Your task to perform on an android device: Open calendar and show me the fourth week of next month Image 0: 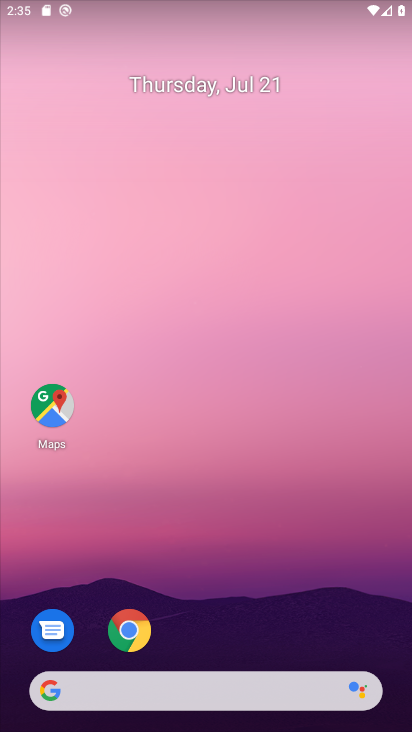
Step 0: drag from (218, 600) to (242, 105)
Your task to perform on an android device: Open calendar and show me the fourth week of next month Image 1: 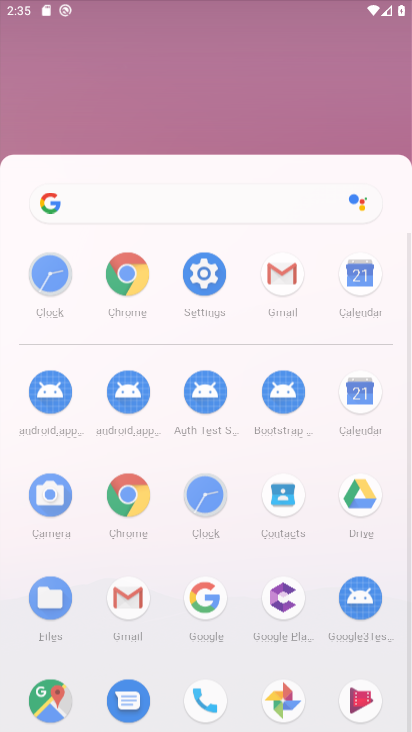
Step 1: drag from (173, 534) to (118, 33)
Your task to perform on an android device: Open calendar and show me the fourth week of next month Image 2: 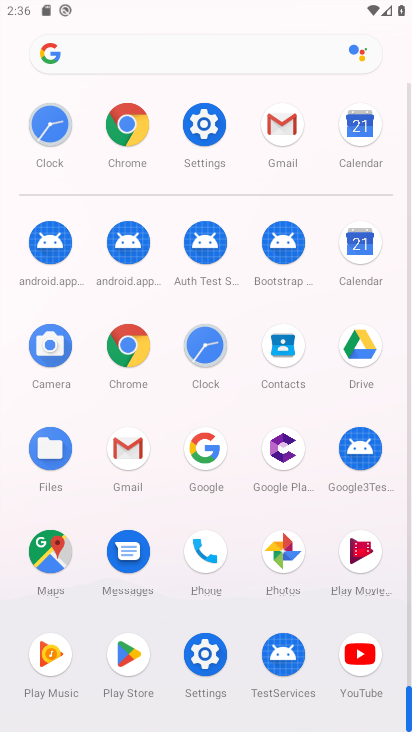
Step 2: click (368, 249)
Your task to perform on an android device: Open calendar and show me the fourth week of next month Image 3: 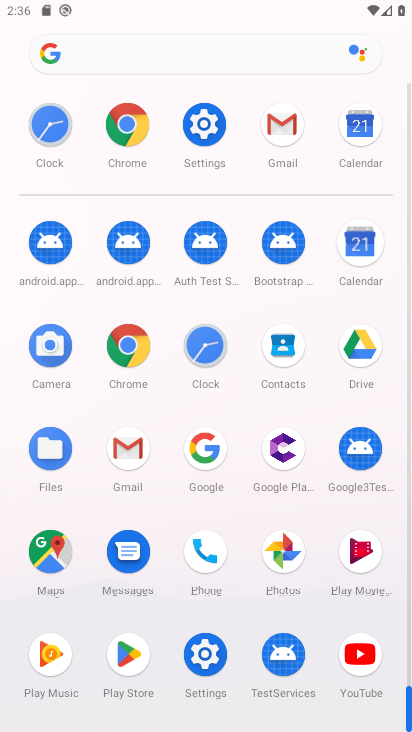
Step 3: click (368, 249)
Your task to perform on an android device: Open calendar and show me the fourth week of next month Image 4: 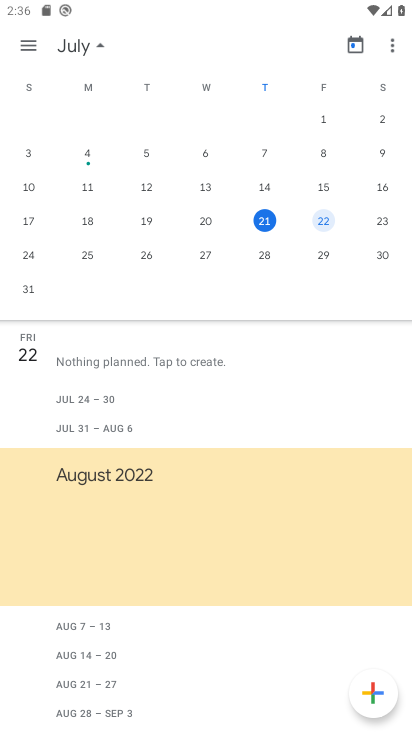
Step 4: drag from (365, 187) to (51, 288)
Your task to perform on an android device: Open calendar and show me the fourth week of next month Image 5: 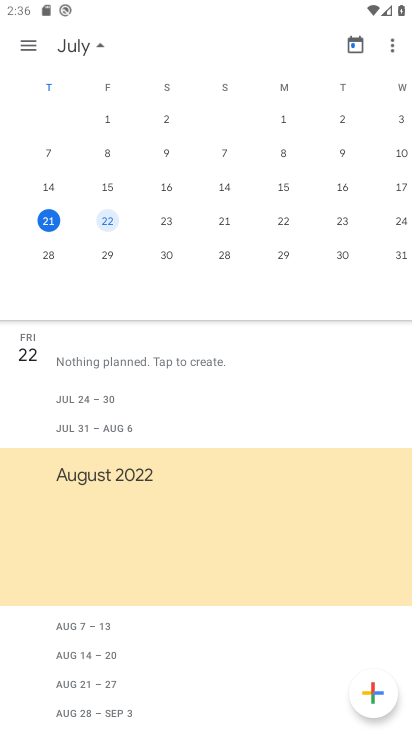
Step 5: drag from (251, 176) to (4, 186)
Your task to perform on an android device: Open calendar and show me the fourth week of next month Image 6: 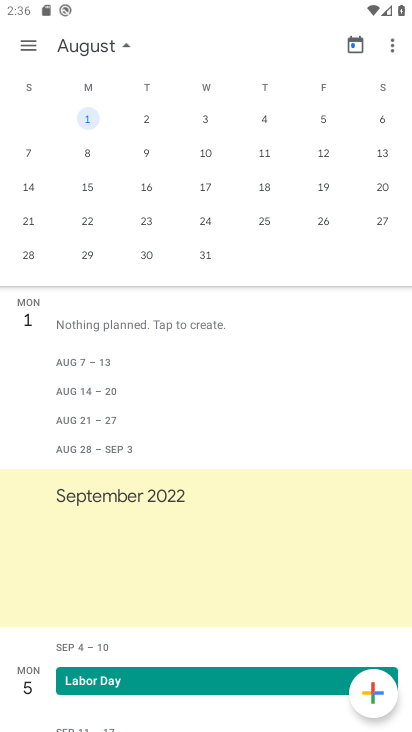
Step 6: click (146, 216)
Your task to perform on an android device: Open calendar and show me the fourth week of next month Image 7: 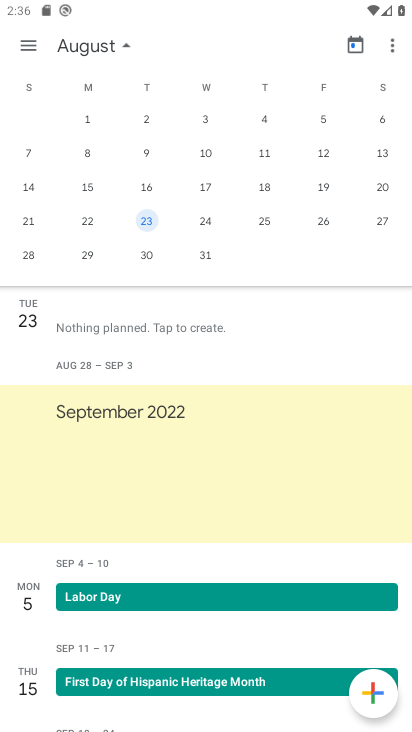
Step 7: task complete